Your task to perform on an android device: Look up the best rated drill on Lowes. Image 0: 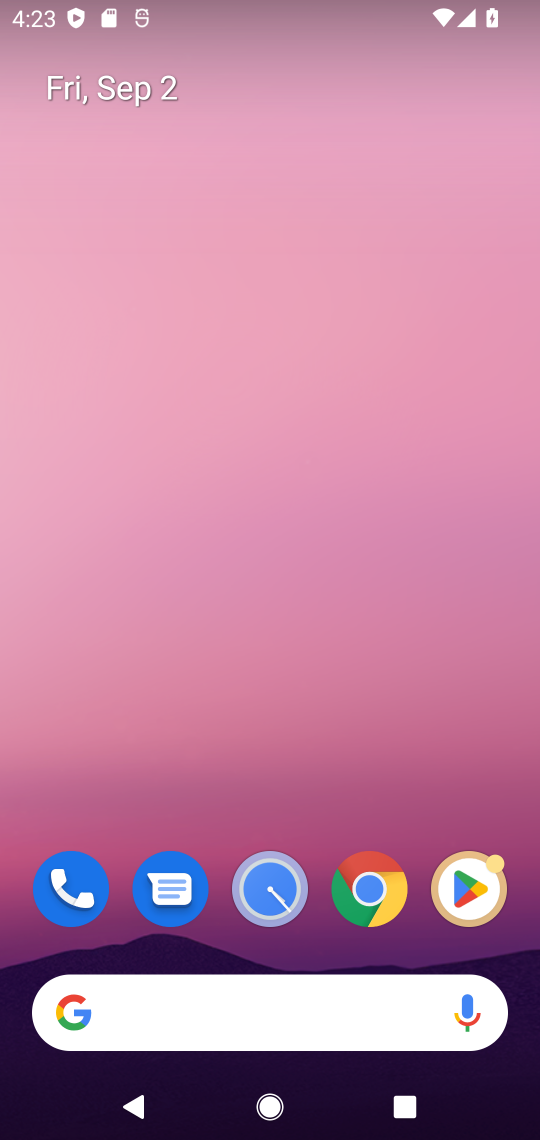
Step 0: click (353, 900)
Your task to perform on an android device: Look up the best rated drill on Lowes. Image 1: 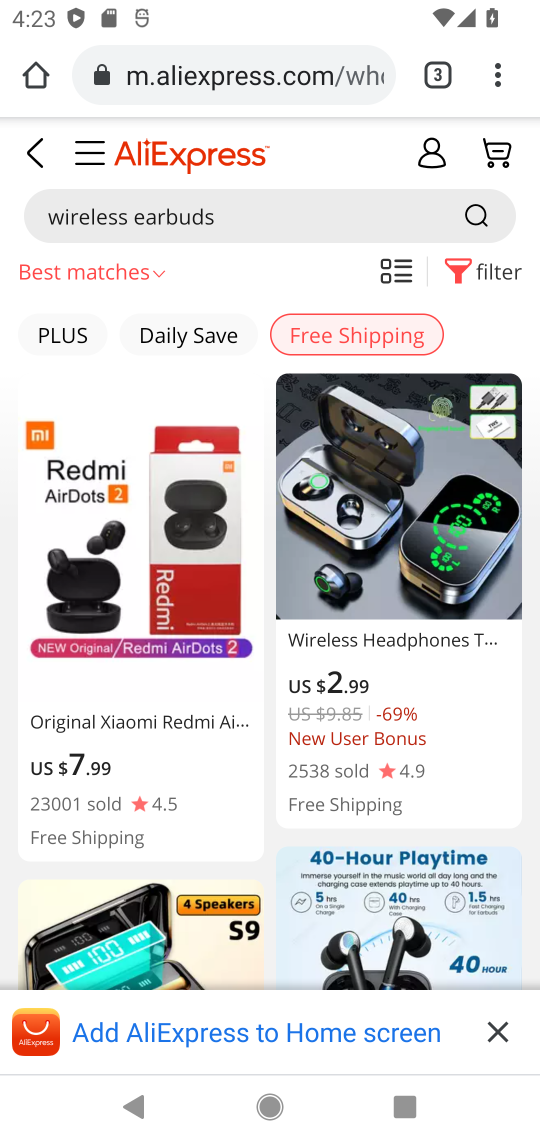
Step 1: click (436, 63)
Your task to perform on an android device: Look up the best rated drill on Lowes. Image 2: 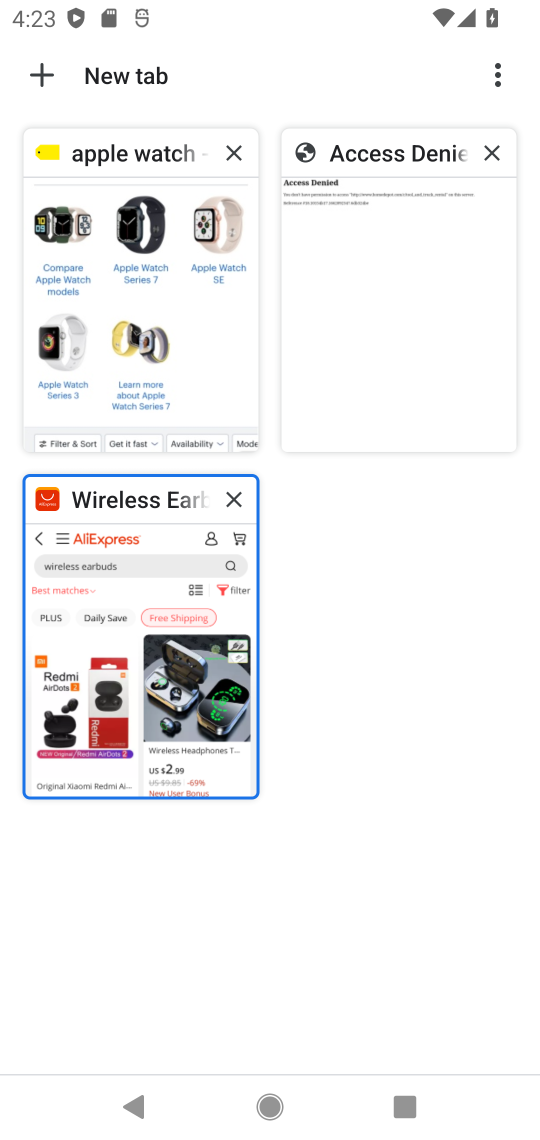
Step 2: click (50, 76)
Your task to perform on an android device: Look up the best rated drill on Lowes. Image 3: 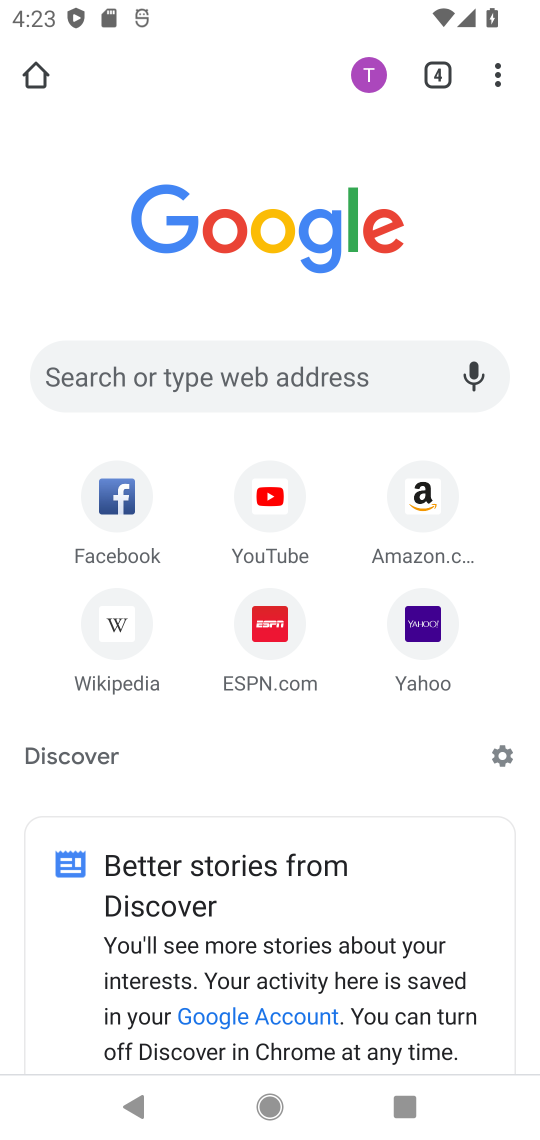
Step 3: click (193, 385)
Your task to perform on an android device: Look up the best rated drill on Lowes. Image 4: 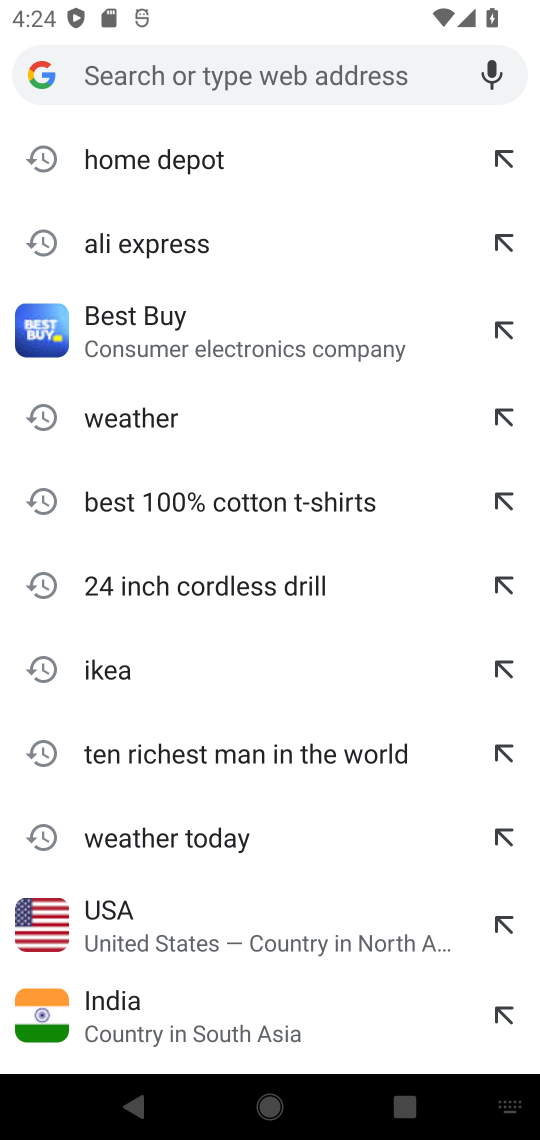
Step 4: type "Lowes."
Your task to perform on an android device: Look up the best rated drill on Lowes. Image 5: 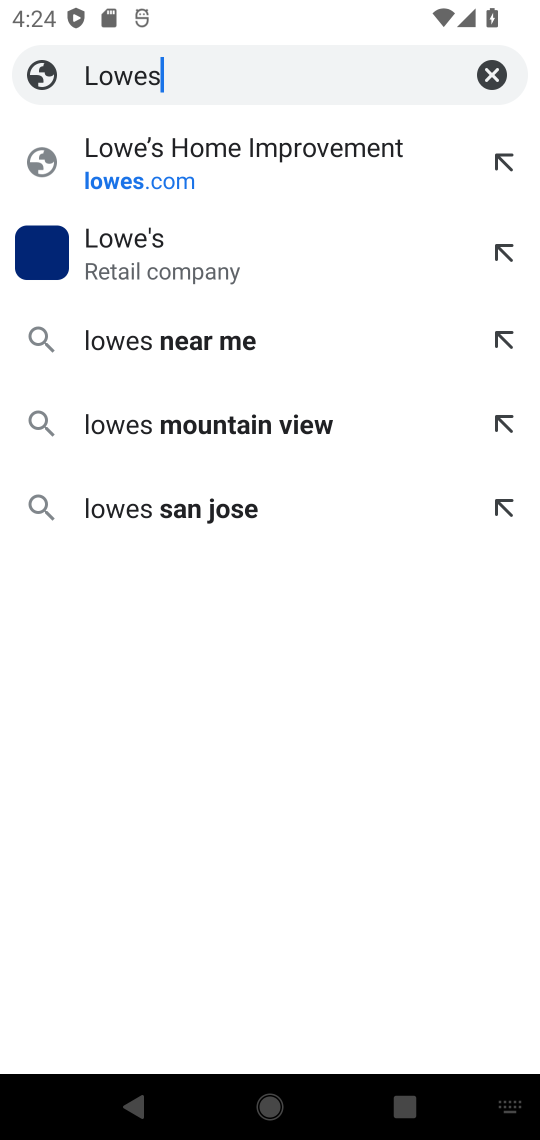
Step 5: type ""
Your task to perform on an android device: Look up the best rated drill on Lowes. Image 6: 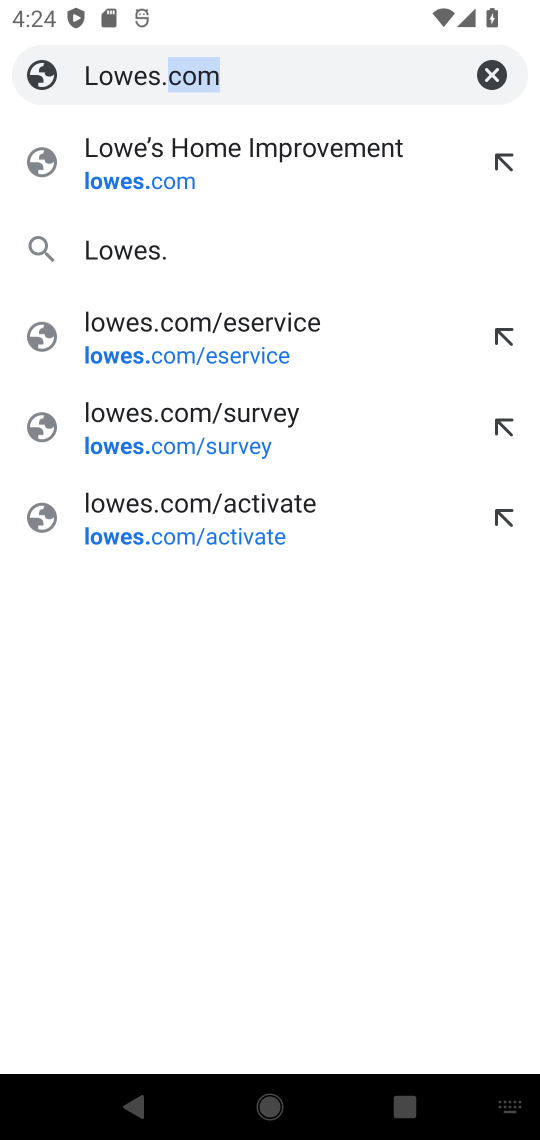
Step 6: click (202, 250)
Your task to perform on an android device: Look up the best rated drill on Lowes. Image 7: 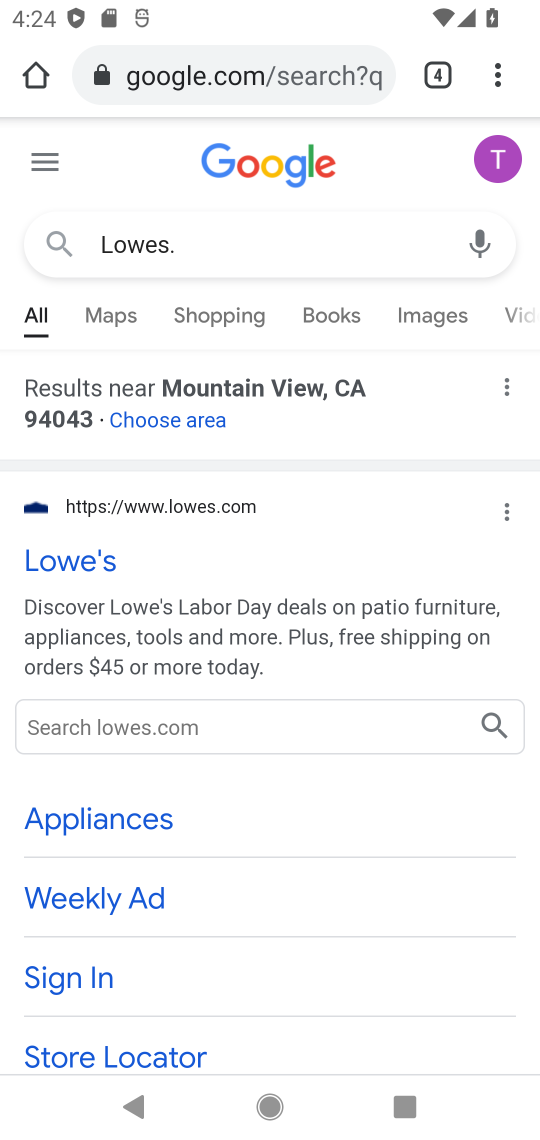
Step 7: click (113, 546)
Your task to perform on an android device: Look up the best rated drill on Lowes. Image 8: 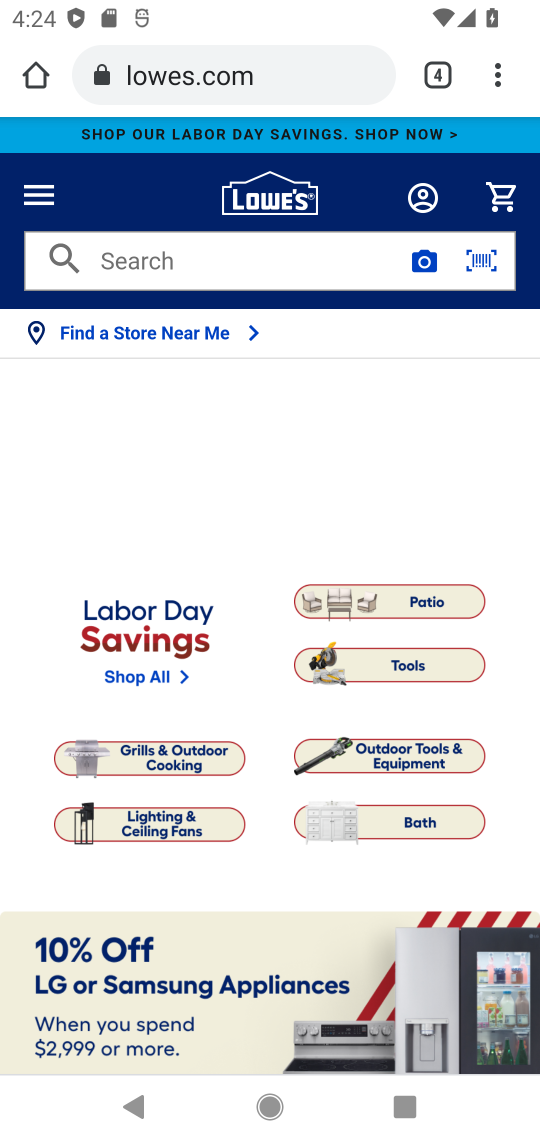
Step 8: click (224, 244)
Your task to perform on an android device: Look up the best rated drill on Lowes. Image 9: 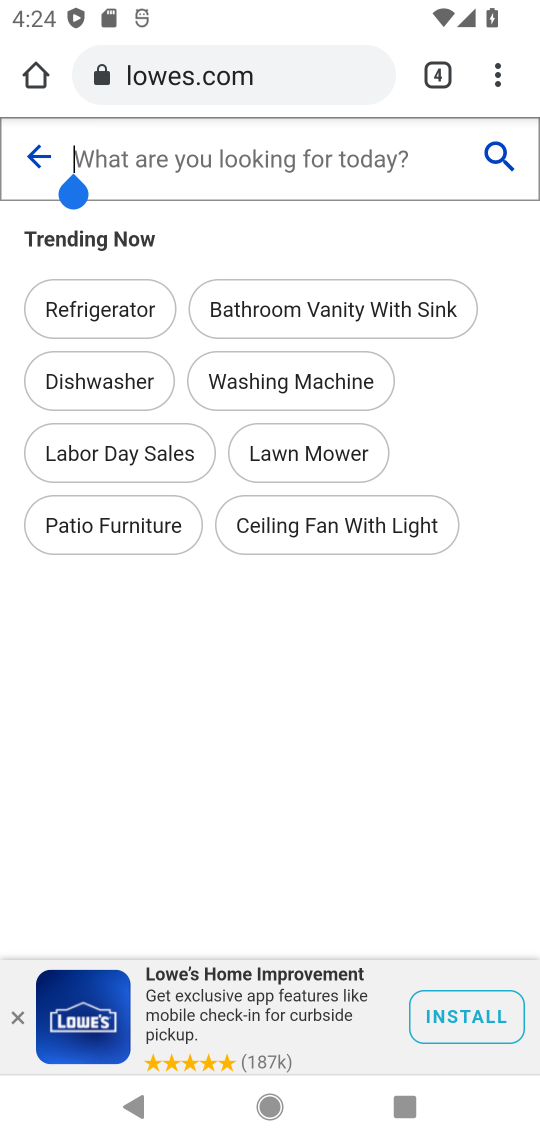
Step 9: type "best rated drill"
Your task to perform on an android device: Look up the best rated drill on Lowes. Image 10: 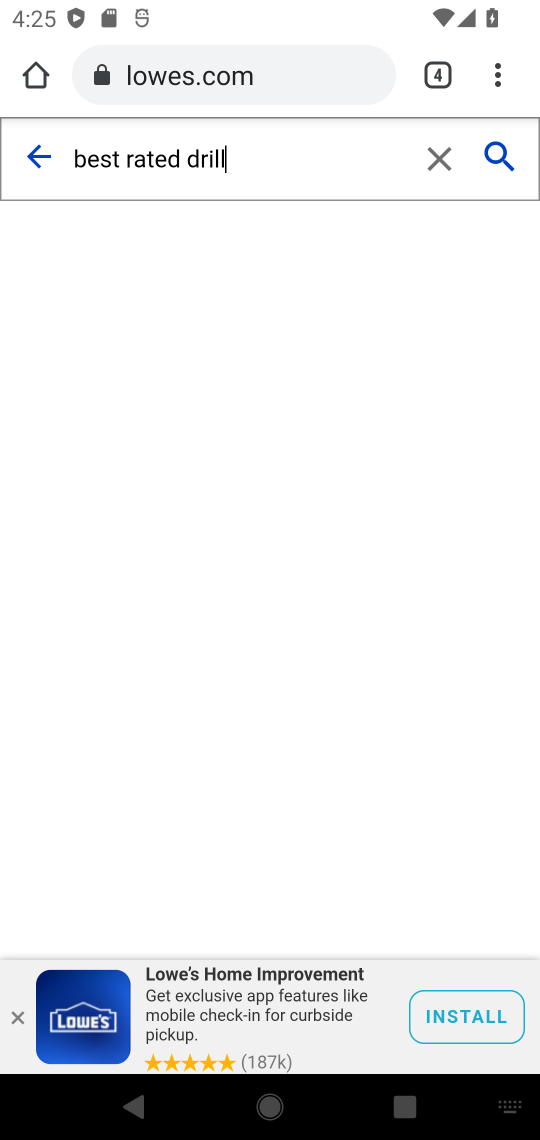
Step 10: click (477, 143)
Your task to perform on an android device: Look up the best rated drill on Lowes. Image 11: 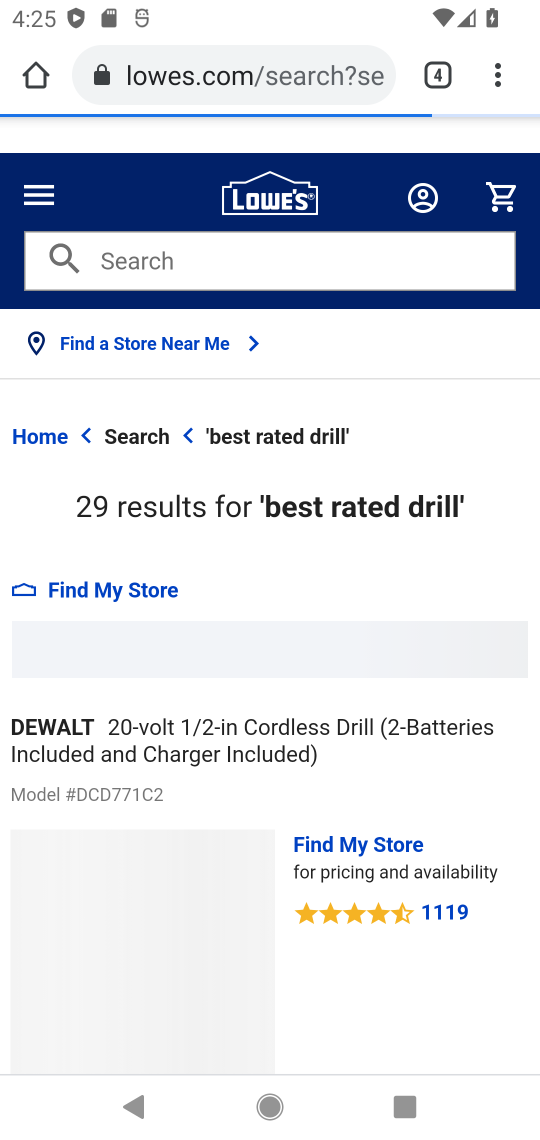
Step 11: task complete